Your task to perform on an android device: Install the Reddit app Image 0: 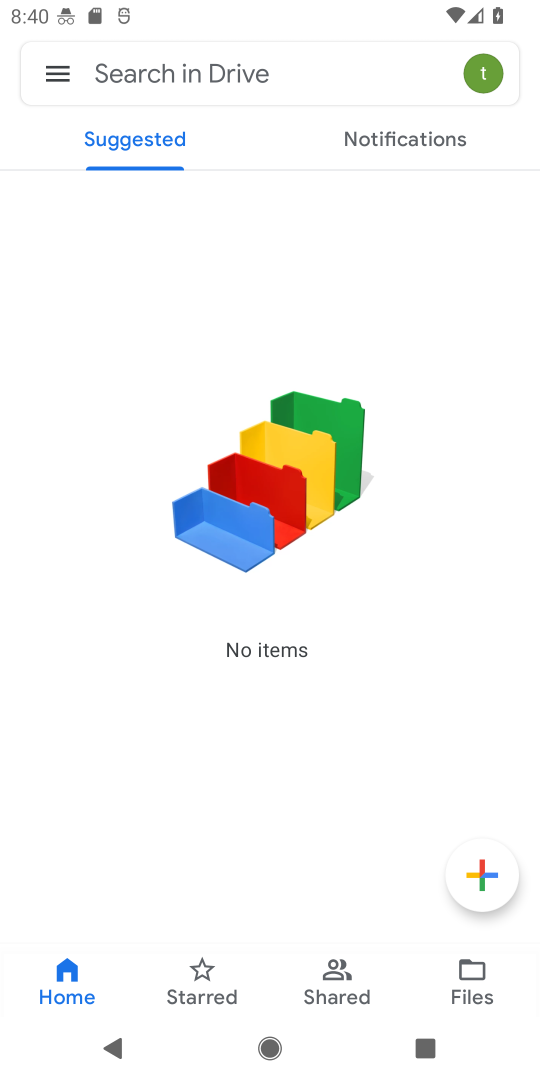
Step 0: press home button
Your task to perform on an android device: Install the Reddit app Image 1: 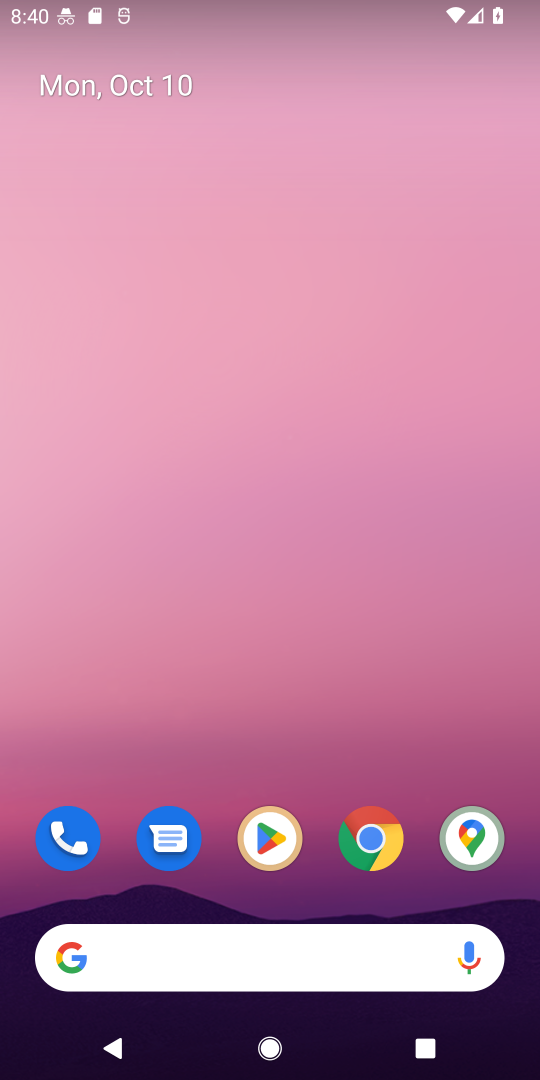
Step 1: click (367, 839)
Your task to perform on an android device: Install the Reddit app Image 2: 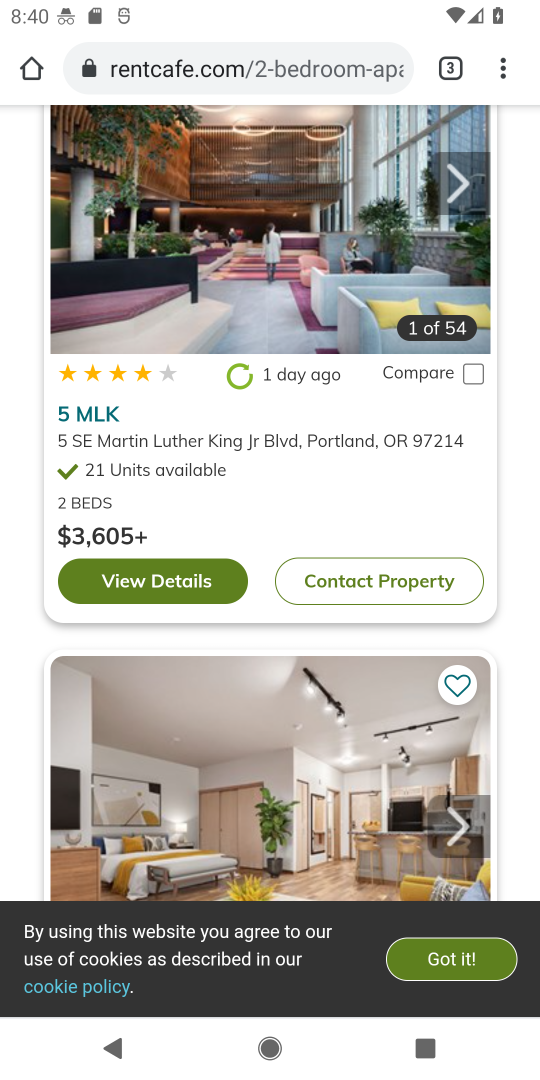
Step 2: click (260, 44)
Your task to perform on an android device: Install the Reddit app Image 3: 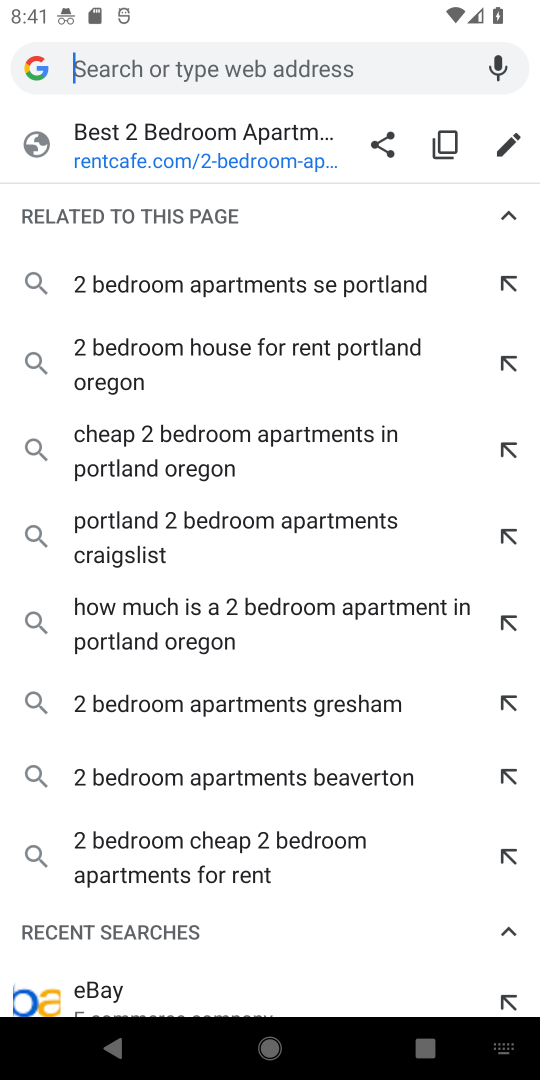
Step 3: type "reddit app"
Your task to perform on an android device: Install the Reddit app Image 4: 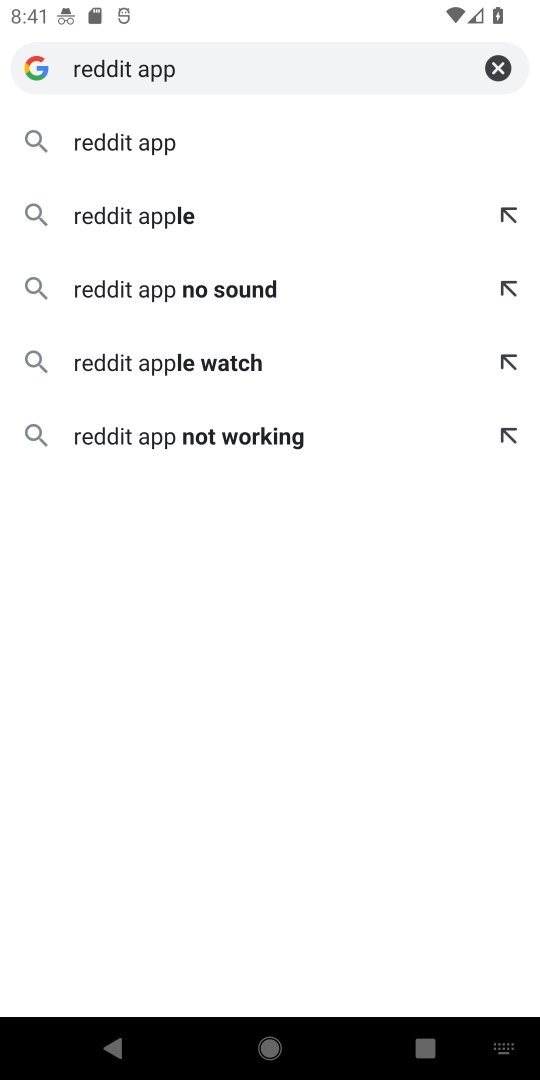
Step 4: click (131, 143)
Your task to perform on an android device: Install the Reddit app Image 5: 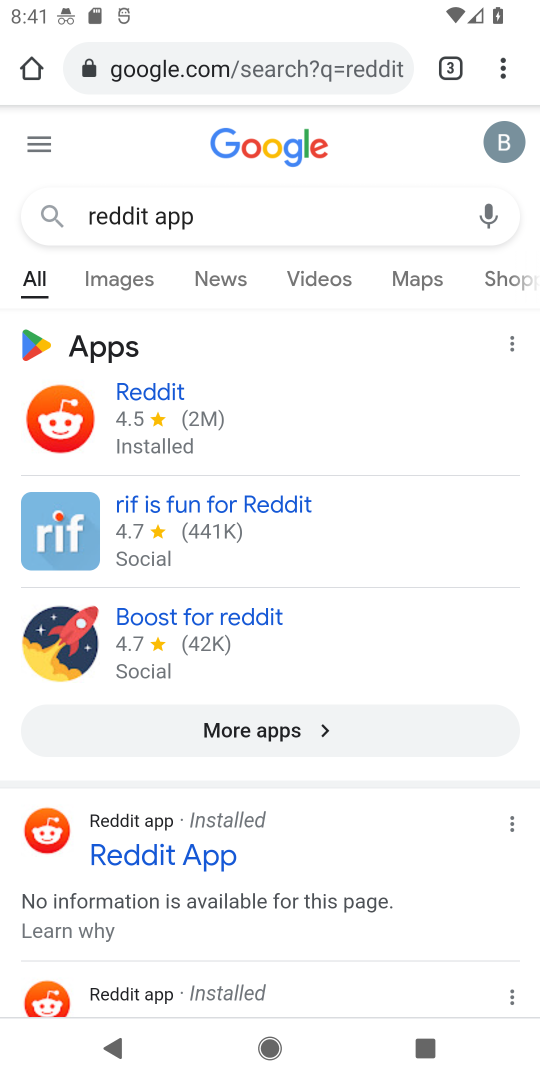
Step 5: click (127, 395)
Your task to perform on an android device: Install the Reddit app Image 6: 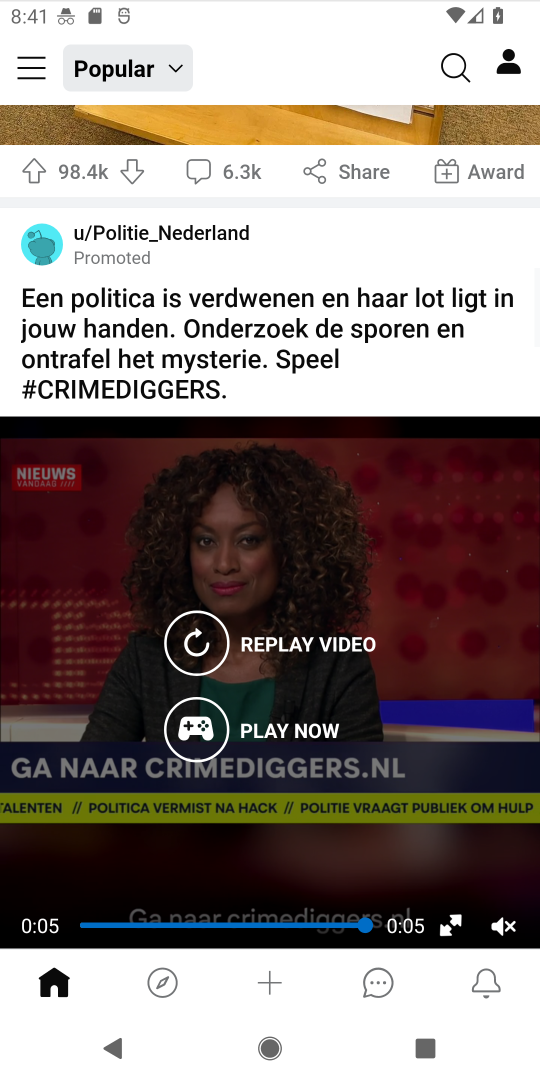
Step 6: click (167, 320)
Your task to perform on an android device: Install the Reddit app Image 7: 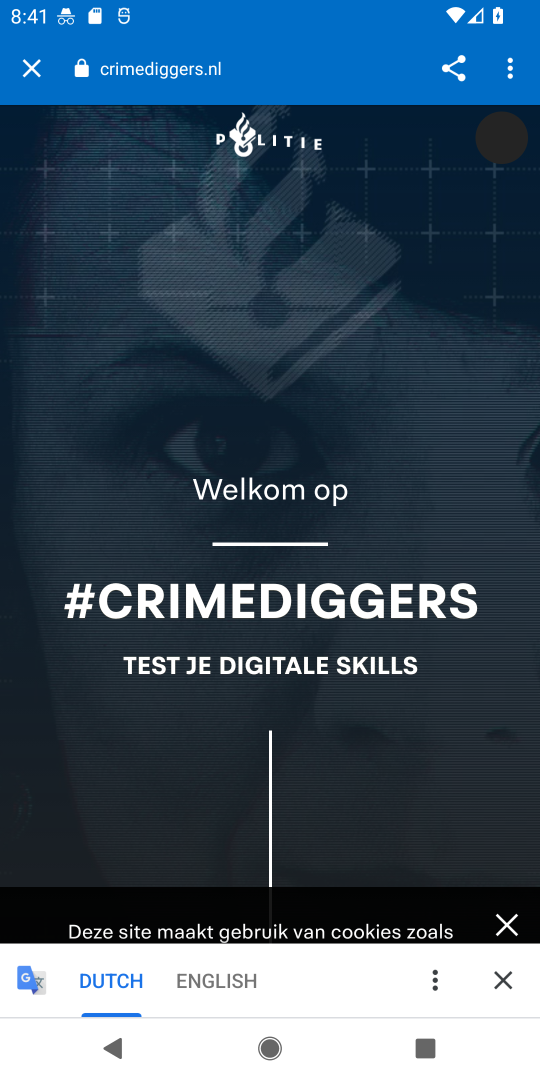
Step 7: click (26, 67)
Your task to perform on an android device: Install the Reddit app Image 8: 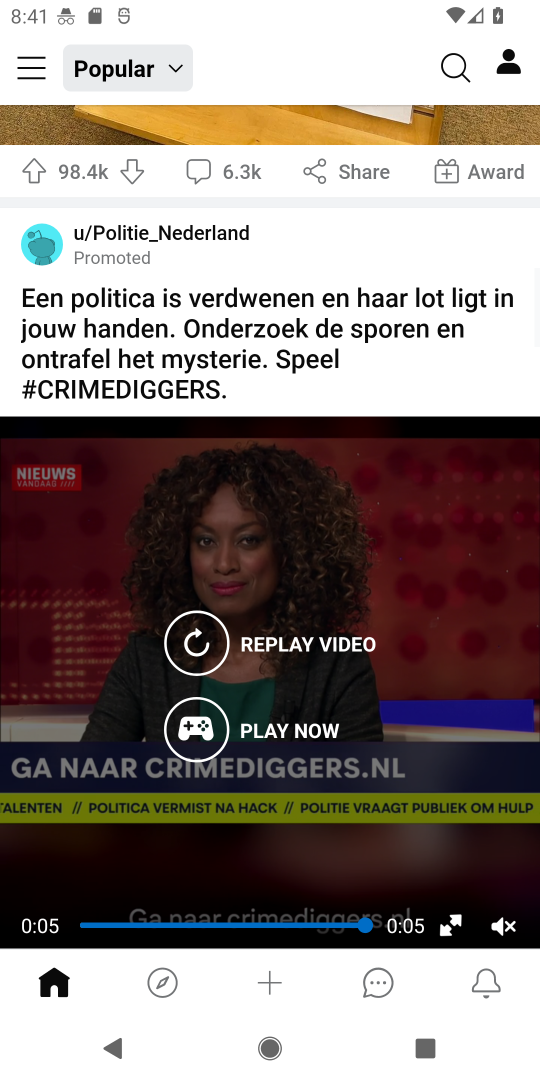
Step 8: task complete